Your task to perform on an android device: change the upload size in google photos Image 0: 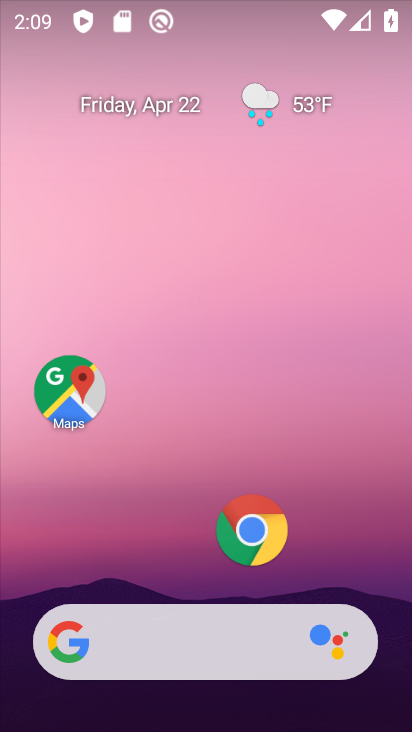
Step 0: drag from (237, 650) to (186, 184)
Your task to perform on an android device: change the upload size in google photos Image 1: 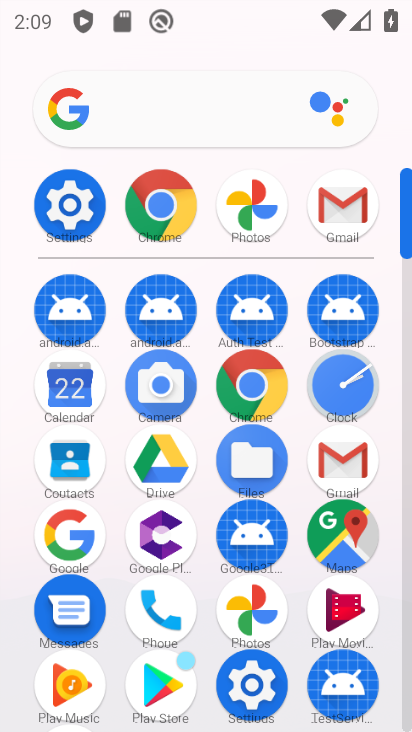
Step 1: click (247, 195)
Your task to perform on an android device: change the upload size in google photos Image 2: 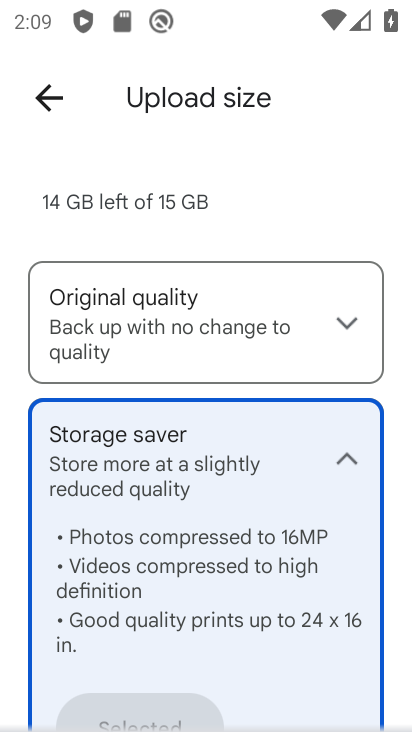
Step 2: drag from (250, 488) to (218, 270)
Your task to perform on an android device: change the upload size in google photos Image 3: 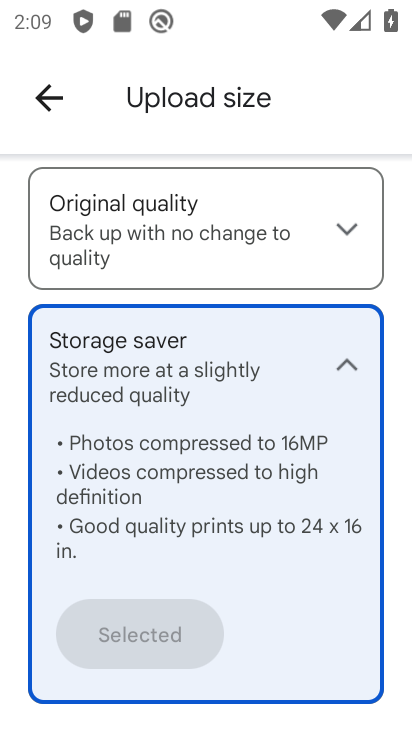
Step 3: click (232, 239)
Your task to perform on an android device: change the upload size in google photos Image 4: 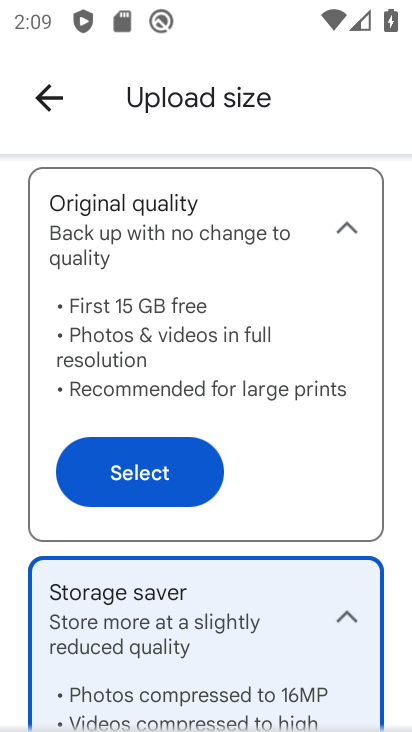
Step 4: click (164, 479)
Your task to perform on an android device: change the upload size in google photos Image 5: 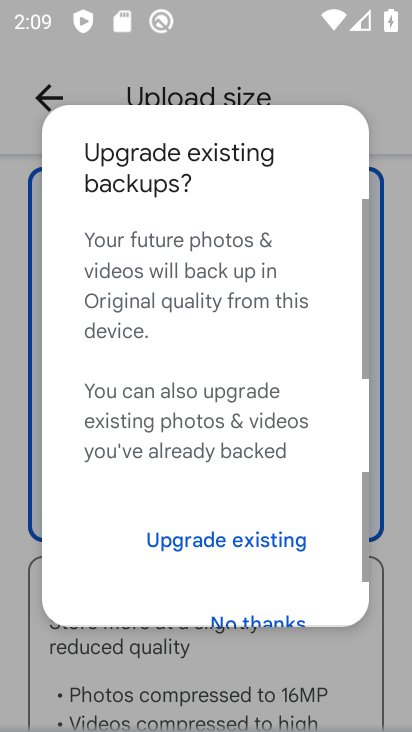
Step 5: task complete